Your task to perform on an android device: turn off location Image 0: 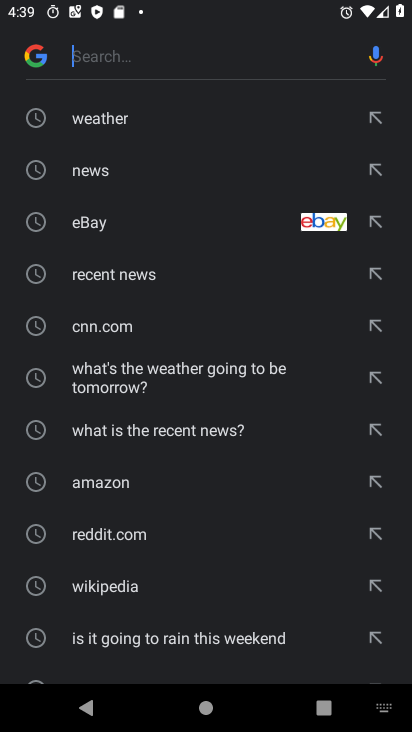
Step 0: press home button
Your task to perform on an android device: turn off location Image 1: 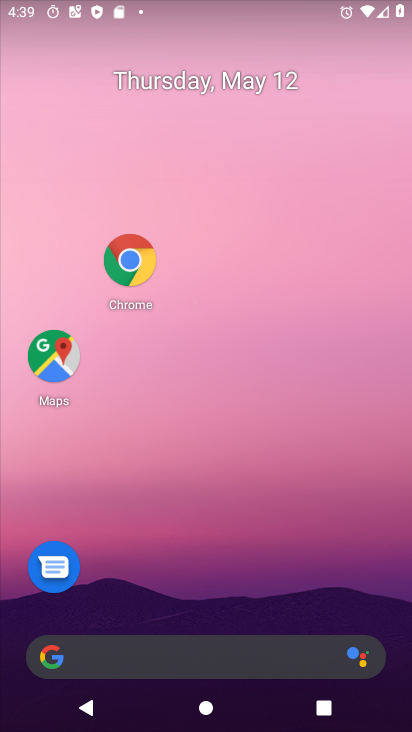
Step 1: drag from (175, 493) to (185, 418)
Your task to perform on an android device: turn off location Image 2: 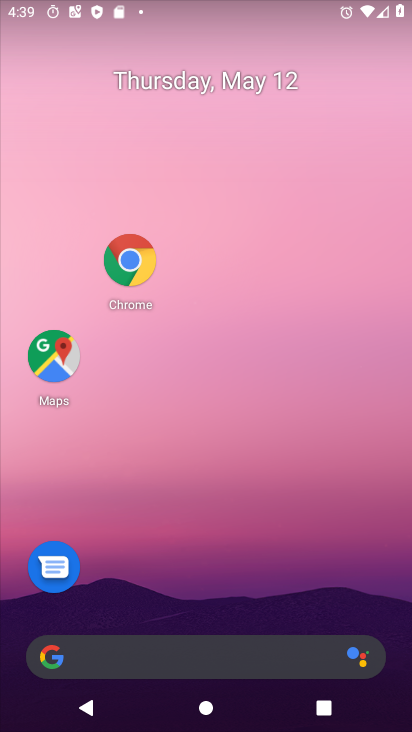
Step 2: drag from (213, 641) to (239, 315)
Your task to perform on an android device: turn off location Image 3: 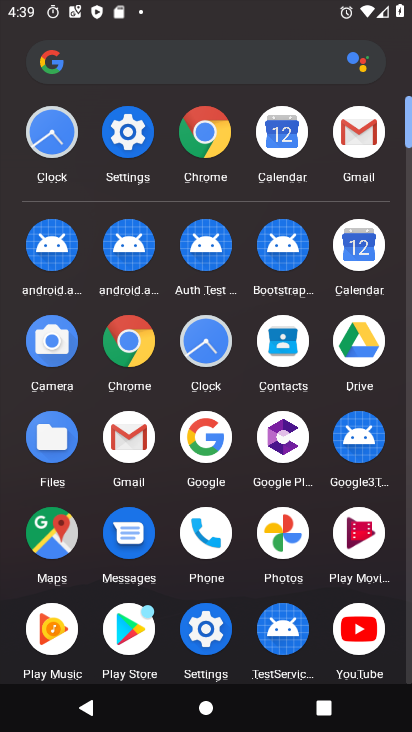
Step 3: click (210, 630)
Your task to perform on an android device: turn off location Image 4: 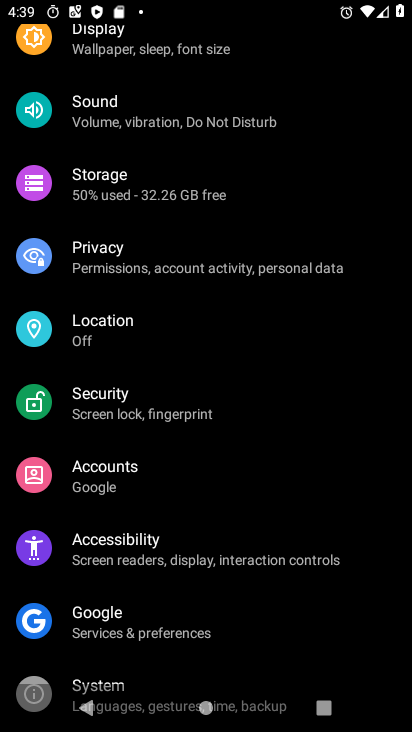
Step 4: click (133, 332)
Your task to perform on an android device: turn off location Image 5: 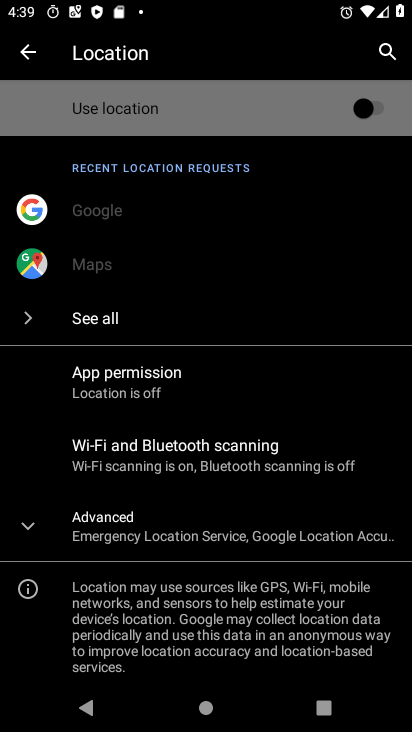
Step 5: task complete